Your task to perform on an android device: Show me recent news Image 0: 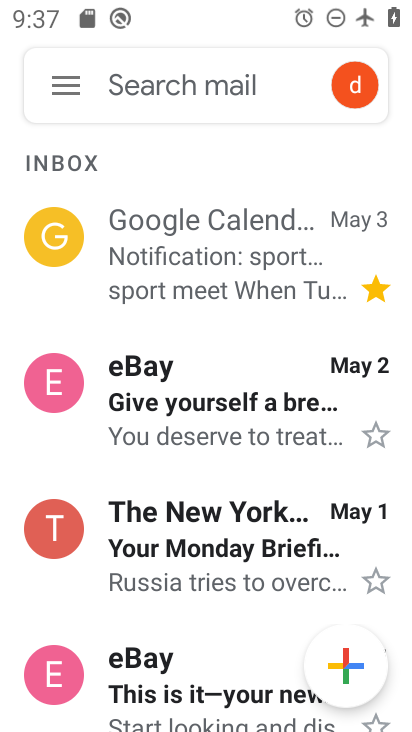
Step 0: press home button
Your task to perform on an android device: Show me recent news Image 1: 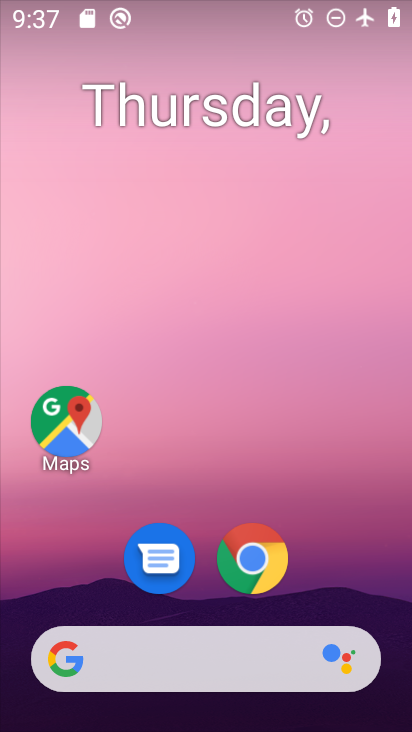
Step 1: task complete